Your task to perform on an android device: Open the Play Movies app and select the watchlist tab. Image 0: 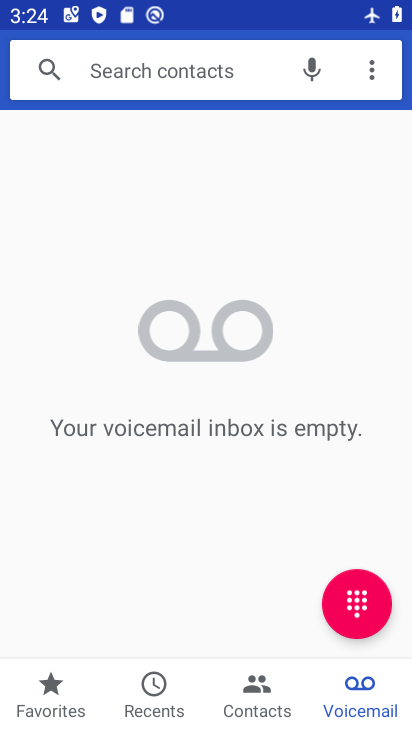
Step 0: press home button
Your task to perform on an android device: Open the Play Movies app and select the watchlist tab. Image 1: 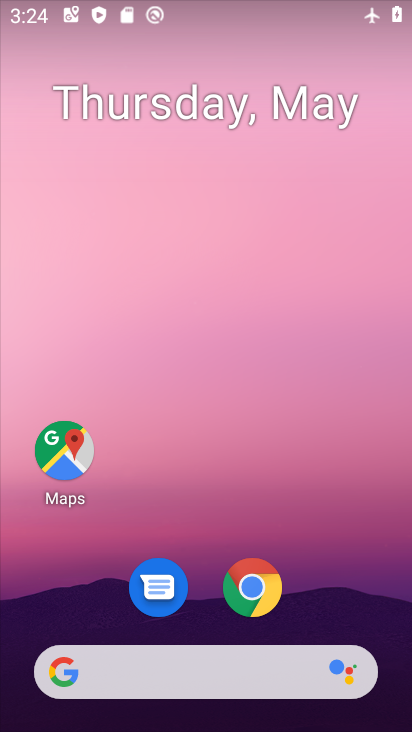
Step 1: drag from (271, 428) to (303, 154)
Your task to perform on an android device: Open the Play Movies app and select the watchlist tab. Image 2: 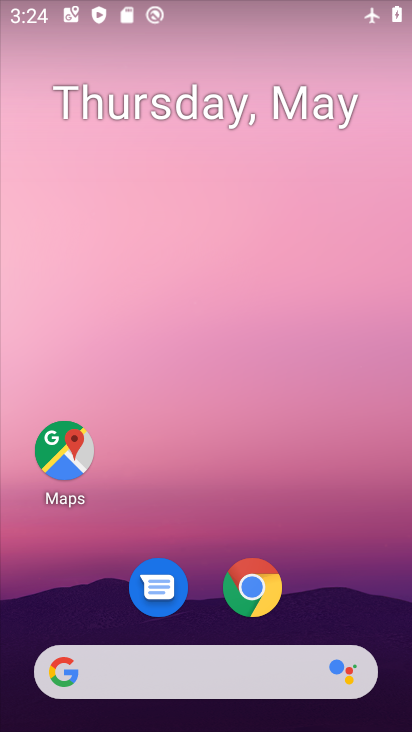
Step 2: drag from (228, 575) to (233, 84)
Your task to perform on an android device: Open the Play Movies app and select the watchlist tab. Image 3: 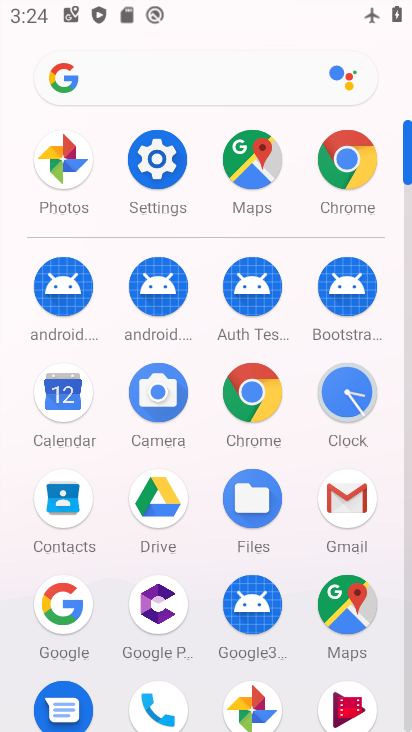
Step 3: drag from (238, 502) to (244, 182)
Your task to perform on an android device: Open the Play Movies app and select the watchlist tab. Image 4: 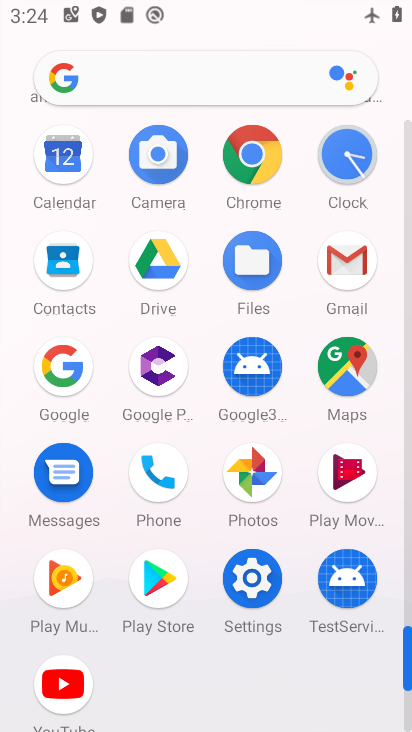
Step 4: click (353, 489)
Your task to perform on an android device: Open the Play Movies app and select the watchlist tab. Image 5: 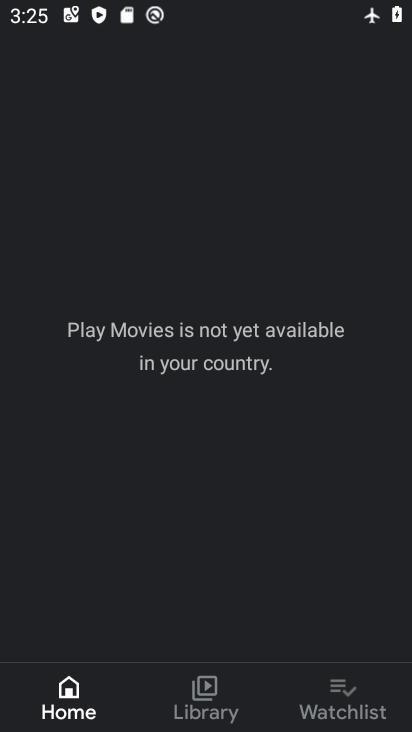
Step 5: click (348, 688)
Your task to perform on an android device: Open the Play Movies app and select the watchlist tab. Image 6: 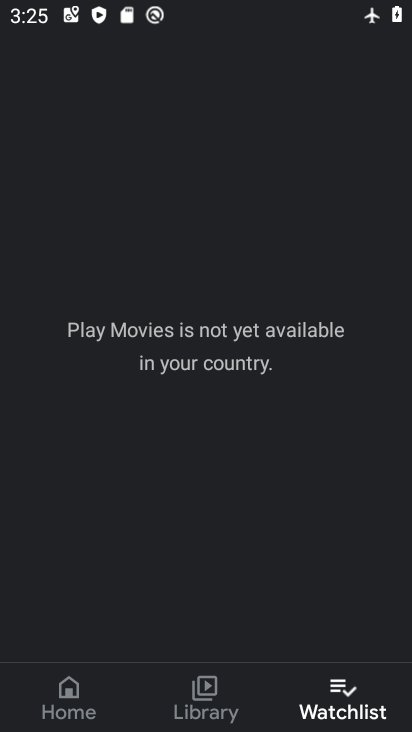
Step 6: task complete